Your task to perform on an android device: Turn off the flashlight Image 0: 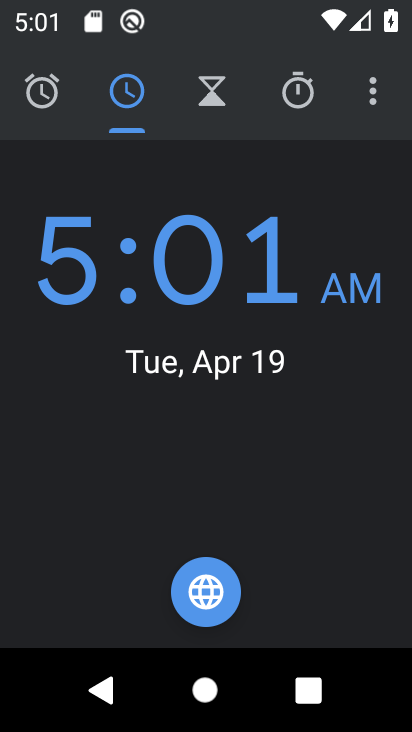
Step 0: press home button
Your task to perform on an android device: Turn off the flashlight Image 1: 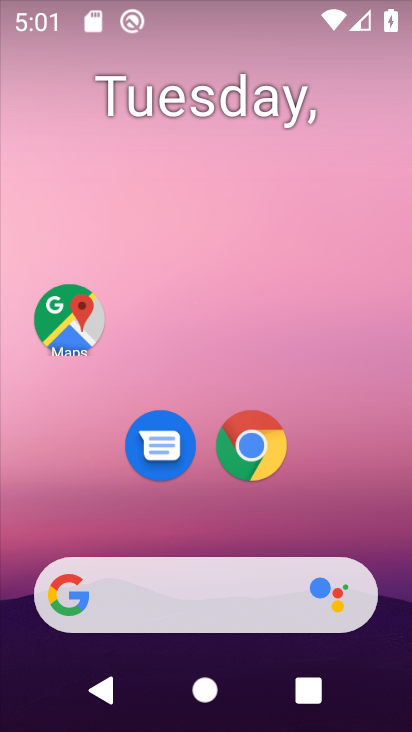
Step 1: task complete